Your task to perform on an android device: all mails in gmail Image 0: 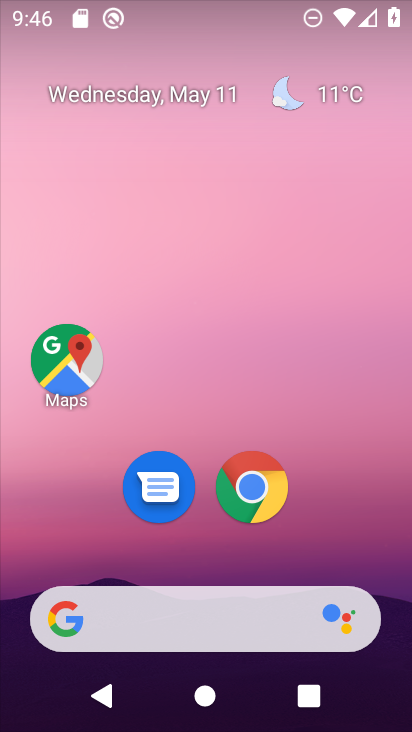
Step 0: drag from (278, 659) to (232, 366)
Your task to perform on an android device: all mails in gmail Image 1: 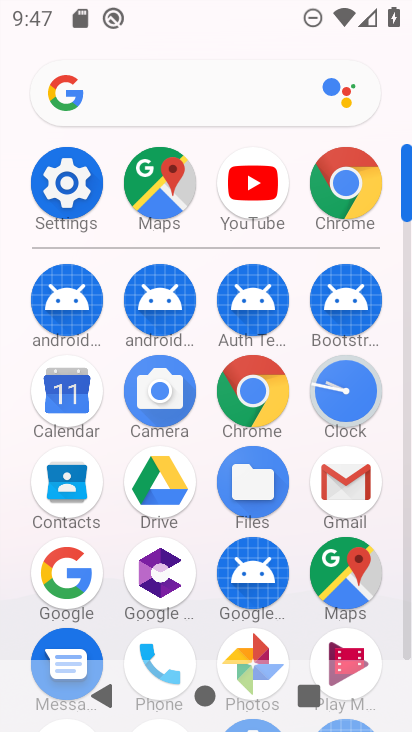
Step 1: click (347, 474)
Your task to perform on an android device: all mails in gmail Image 2: 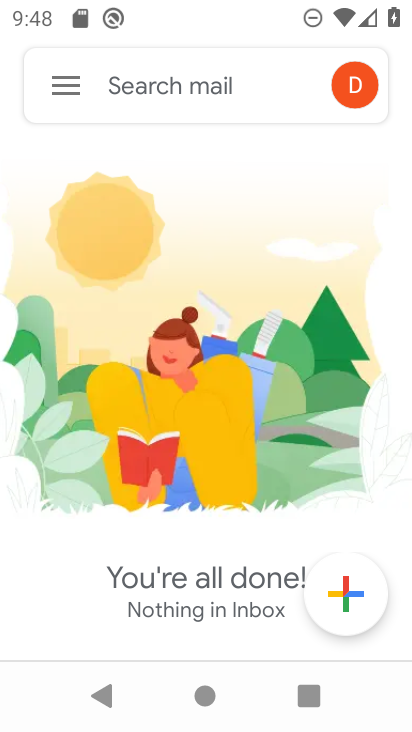
Step 2: click (54, 69)
Your task to perform on an android device: all mails in gmail Image 3: 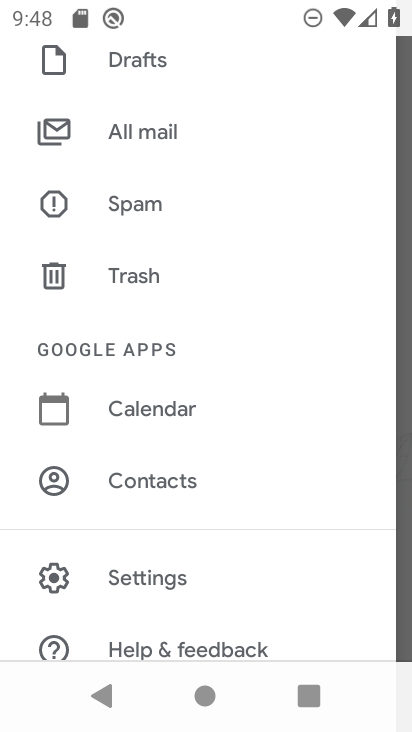
Step 3: click (185, 554)
Your task to perform on an android device: all mails in gmail Image 4: 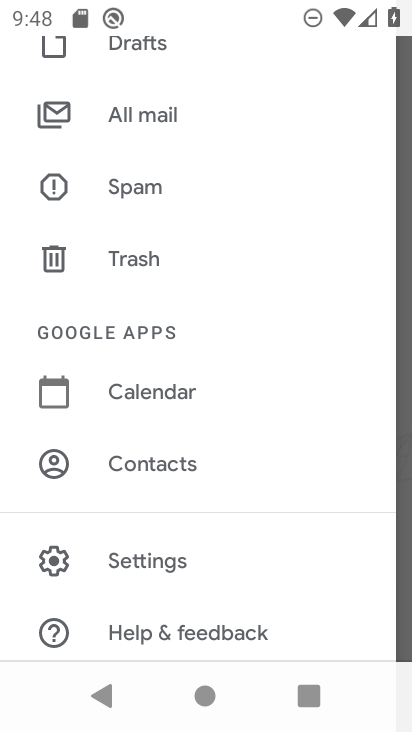
Step 4: click (171, 116)
Your task to perform on an android device: all mails in gmail Image 5: 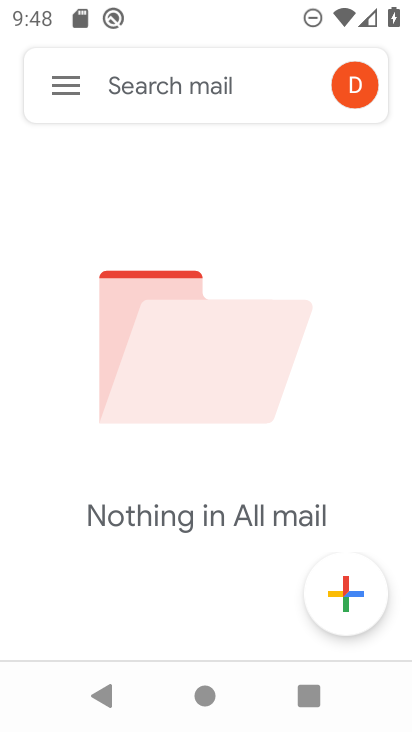
Step 5: task complete